Your task to perform on an android device: Open Chrome and go to settings Image 0: 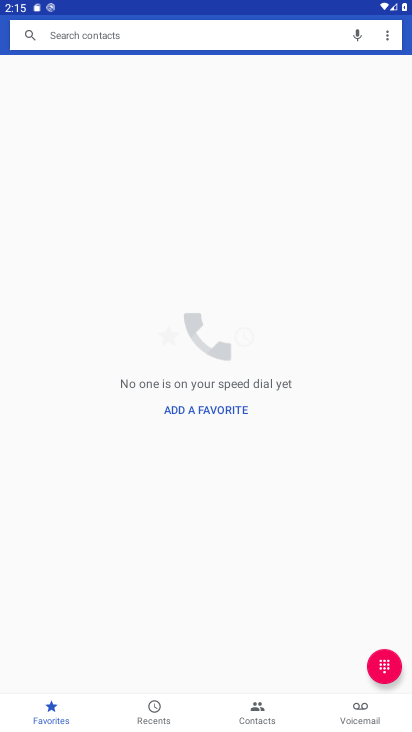
Step 0: press home button
Your task to perform on an android device: Open Chrome and go to settings Image 1: 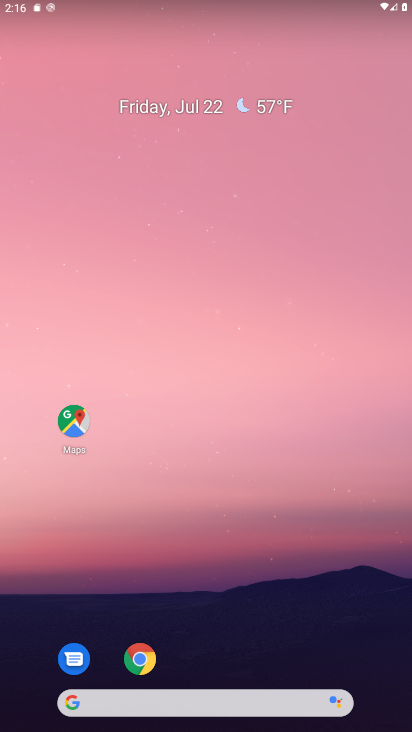
Step 1: click (141, 655)
Your task to perform on an android device: Open Chrome and go to settings Image 2: 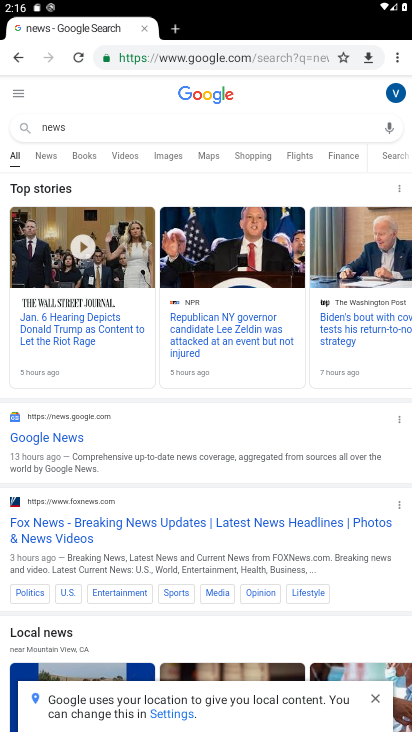
Step 2: click (400, 56)
Your task to perform on an android device: Open Chrome and go to settings Image 3: 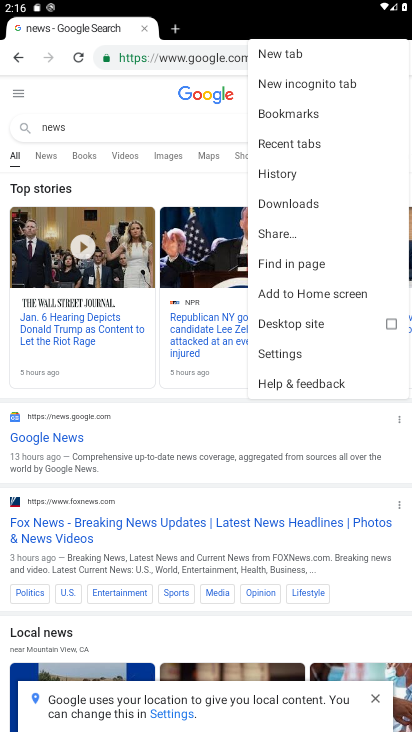
Step 3: click (305, 352)
Your task to perform on an android device: Open Chrome and go to settings Image 4: 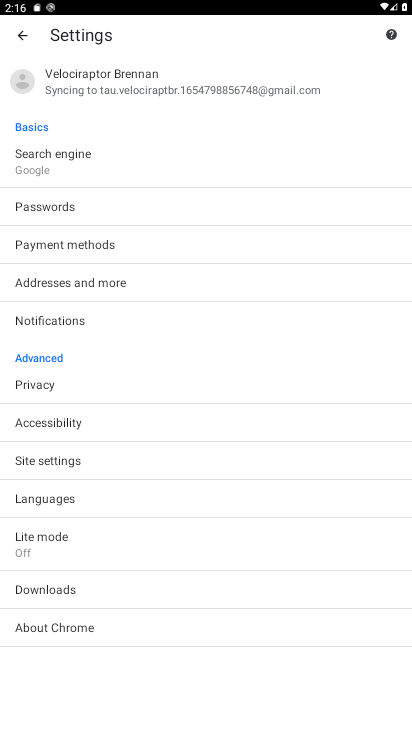
Step 4: task complete